Your task to perform on an android device: toggle notifications settings in the gmail app Image 0: 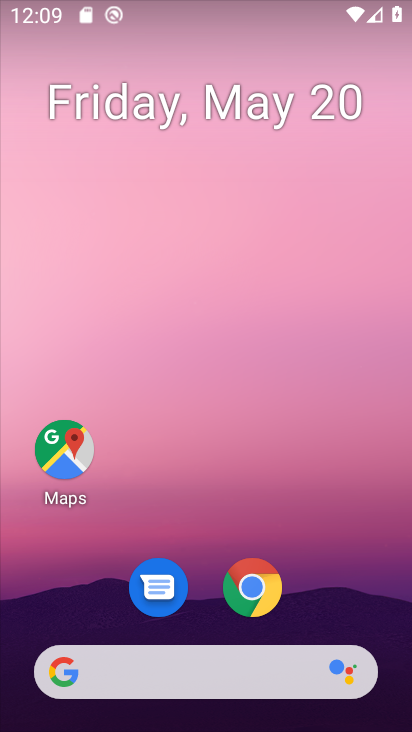
Step 0: drag from (370, 618) to (359, 237)
Your task to perform on an android device: toggle notifications settings in the gmail app Image 1: 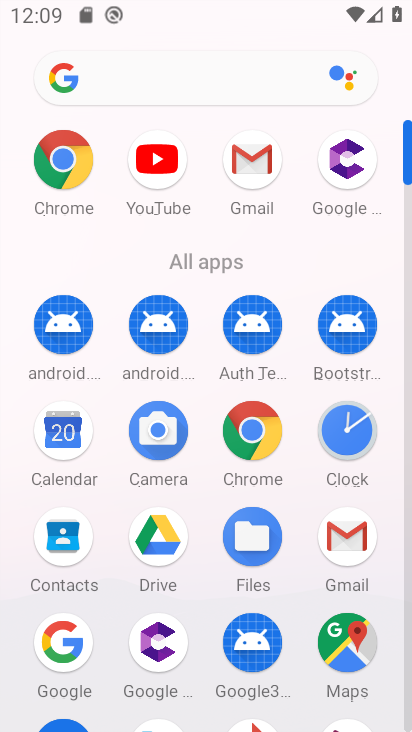
Step 1: click (356, 547)
Your task to perform on an android device: toggle notifications settings in the gmail app Image 2: 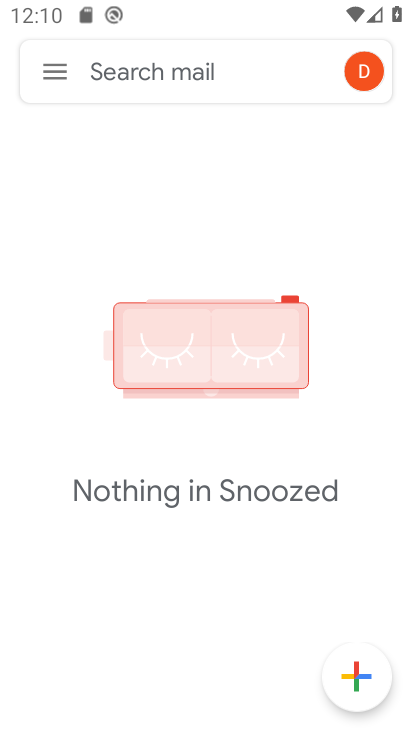
Step 2: click (69, 69)
Your task to perform on an android device: toggle notifications settings in the gmail app Image 3: 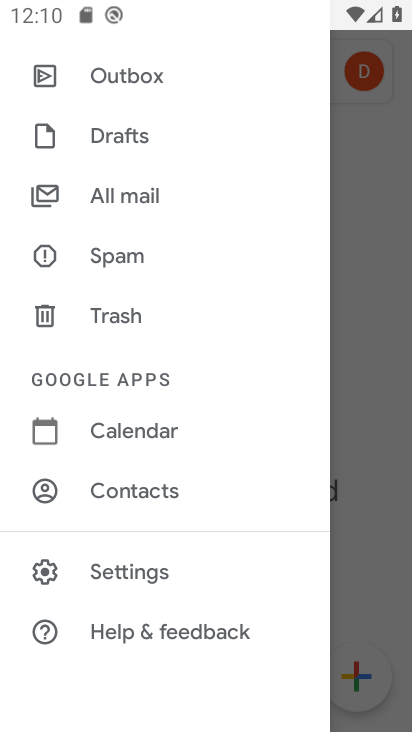
Step 3: drag from (227, 335) to (226, 406)
Your task to perform on an android device: toggle notifications settings in the gmail app Image 4: 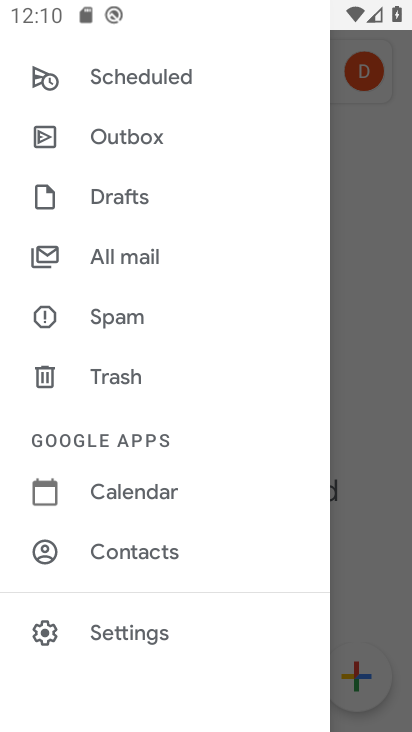
Step 4: drag from (224, 248) to (226, 330)
Your task to perform on an android device: toggle notifications settings in the gmail app Image 5: 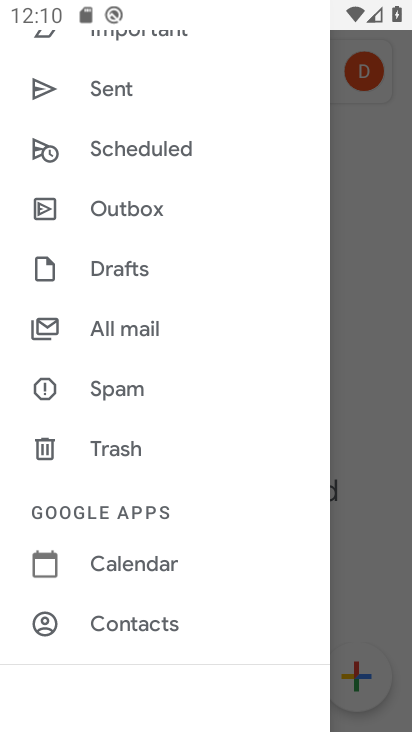
Step 5: drag from (237, 269) to (238, 354)
Your task to perform on an android device: toggle notifications settings in the gmail app Image 6: 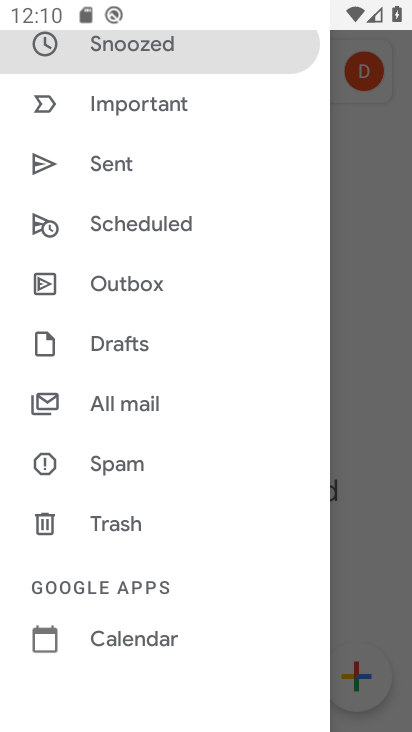
Step 6: drag from (237, 269) to (228, 346)
Your task to perform on an android device: toggle notifications settings in the gmail app Image 7: 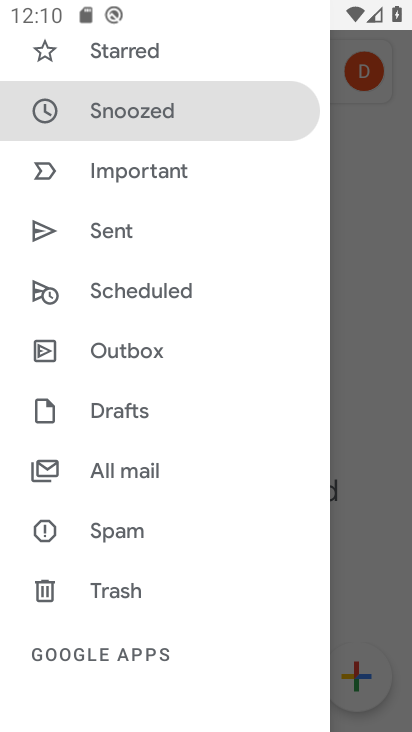
Step 7: drag from (223, 234) to (217, 348)
Your task to perform on an android device: toggle notifications settings in the gmail app Image 8: 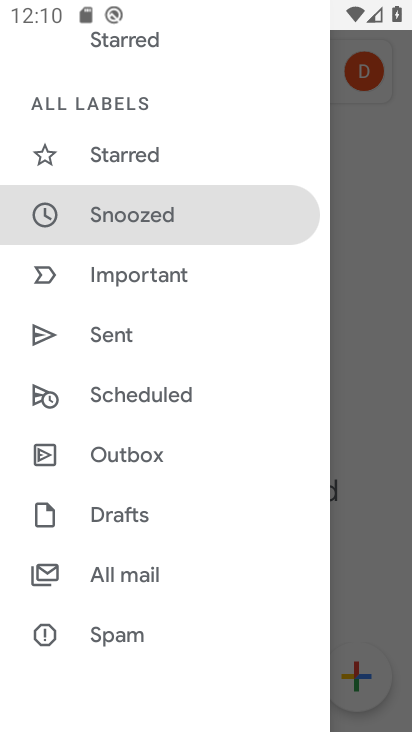
Step 8: drag from (228, 183) to (229, 345)
Your task to perform on an android device: toggle notifications settings in the gmail app Image 9: 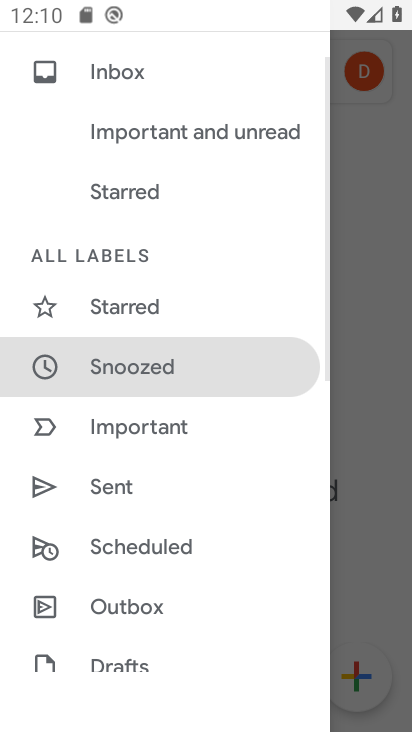
Step 9: drag from (227, 345) to (229, 225)
Your task to perform on an android device: toggle notifications settings in the gmail app Image 10: 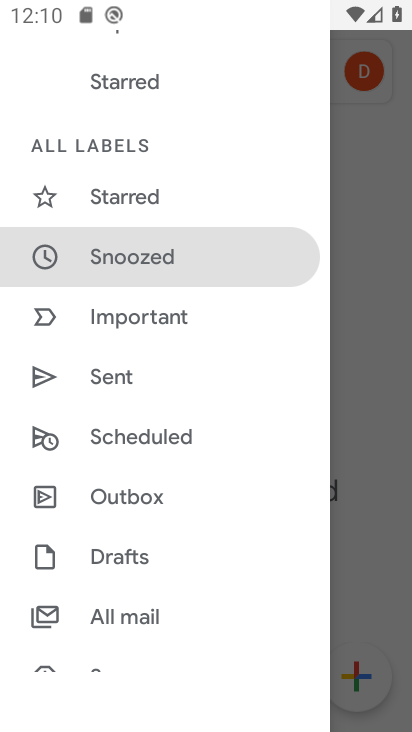
Step 10: drag from (229, 374) to (227, 257)
Your task to perform on an android device: toggle notifications settings in the gmail app Image 11: 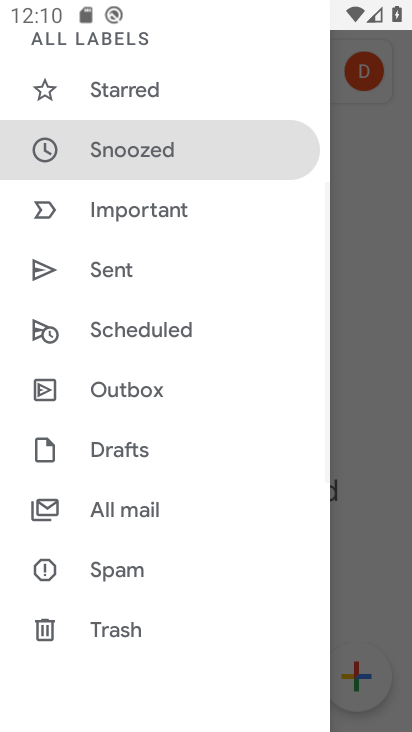
Step 11: drag from (227, 409) to (228, 314)
Your task to perform on an android device: toggle notifications settings in the gmail app Image 12: 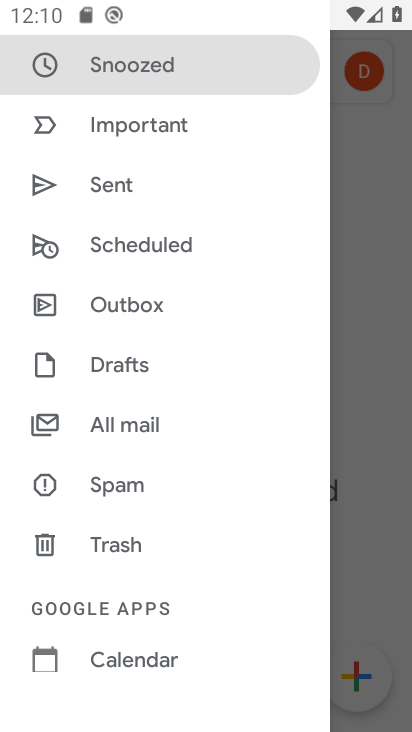
Step 12: drag from (218, 406) to (217, 321)
Your task to perform on an android device: toggle notifications settings in the gmail app Image 13: 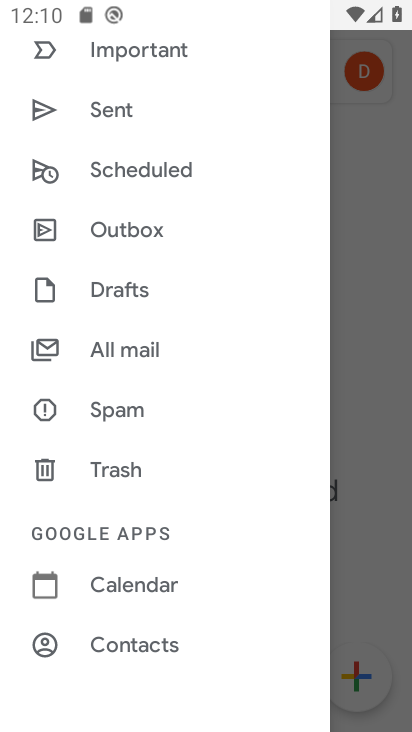
Step 13: drag from (219, 389) to (232, 333)
Your task to perform on an android device: toggle notifications settings in the gmail app Image 14: 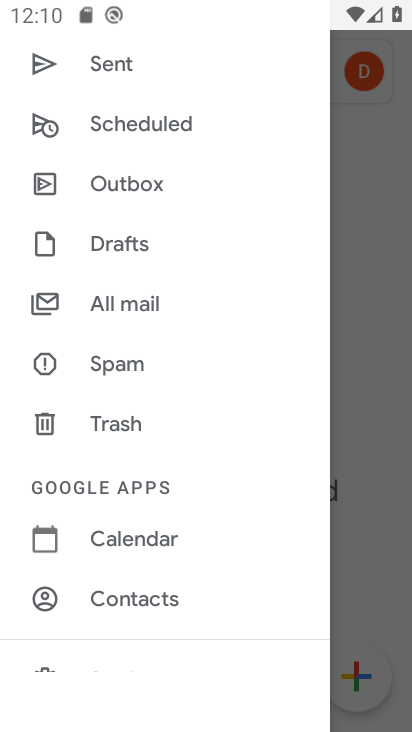
Step 14: drag from (230, 411) to (234, 301)
Your task to perform on an android device: toggle notifications settings in the gmail app Image 15: 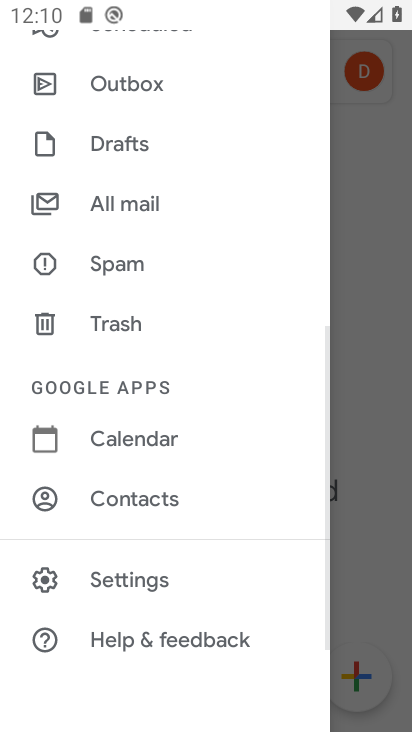
Step 15: drag from (229, 417) to (232, 326)
Your task to perform on an android device: toggle notifications settings in the gmail app Image 16: 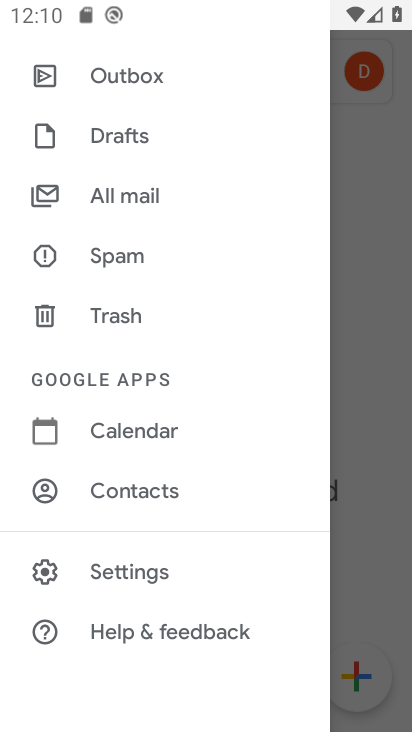
Step 16: drag from (227, 408) to (232, 310)
Your task to perform on an android device: toggle notifications settings in the gmail app Image 17: 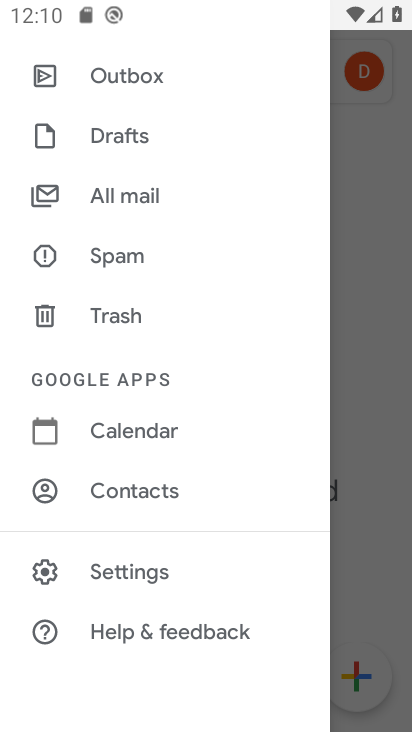
Step 17: click (188, 582)
Your task to perform on an android device: toggle notifications settings in the gmail app Image 18: 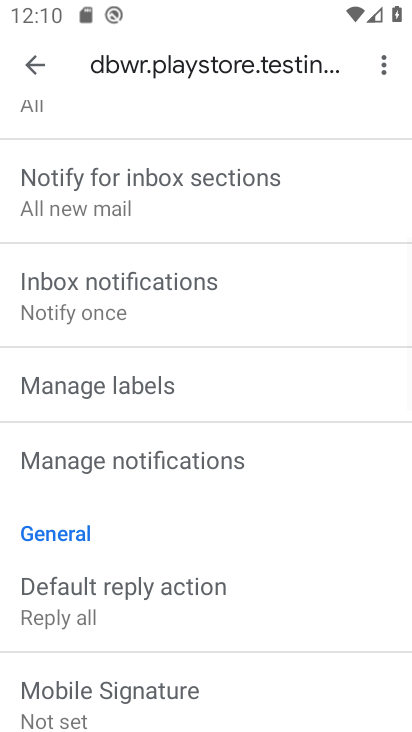
Step 18: drag from (287, 587) to (294, 531)
Your task to perform on an android device: toggle notifications settings in the gmail app Image 19: 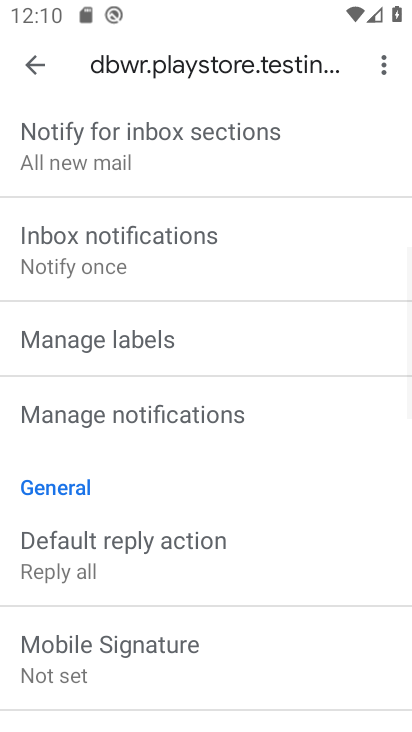
Step 19: drag from (284, 592) to (291, 538)
Your task to perform on an android device: toggle notifications settings in the gmail app Image 20: 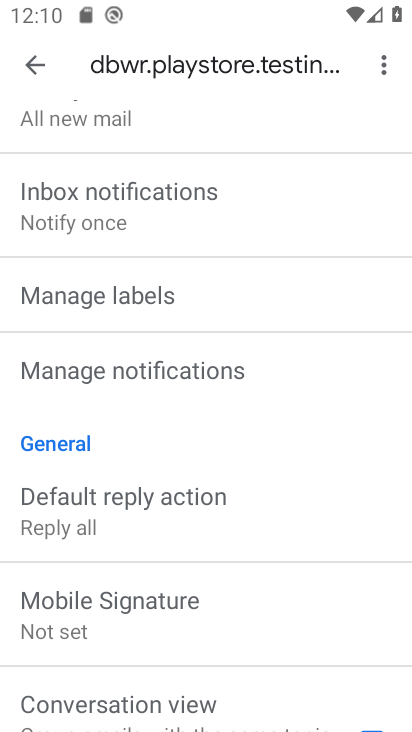
Step 20: click (212, 373)
Your task to perform on an android device: toggle notifications settings in the gmail app Image 21: 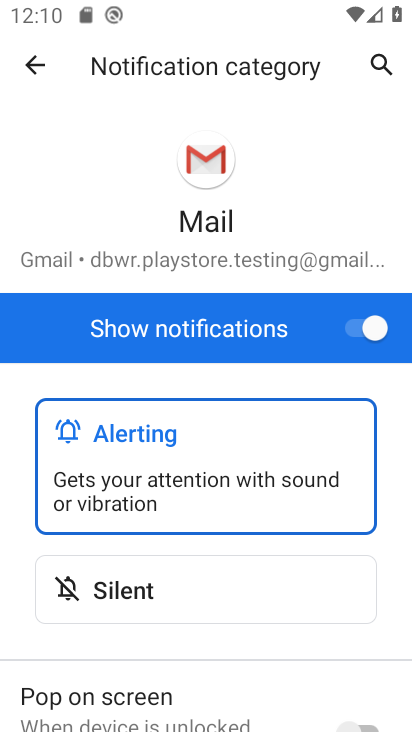
Step 21: click (372, 322)
Your task to perform on an android device: toggle notifications settings in the gmail app Image 22: 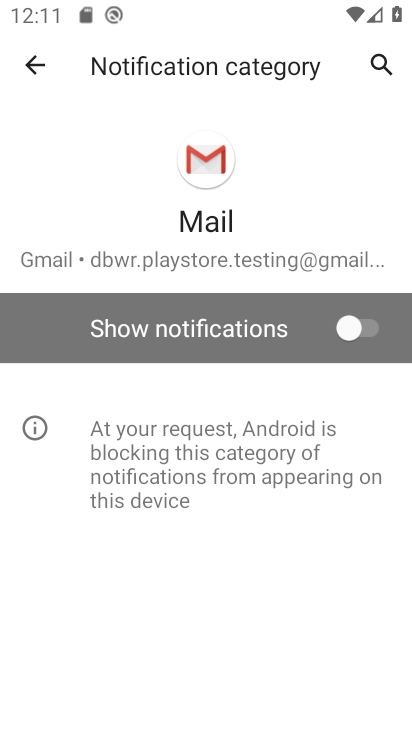
Step 22: task complete